Your task to perform on an android device: Search for the new nike air max 270 on Nike.com Image 0: 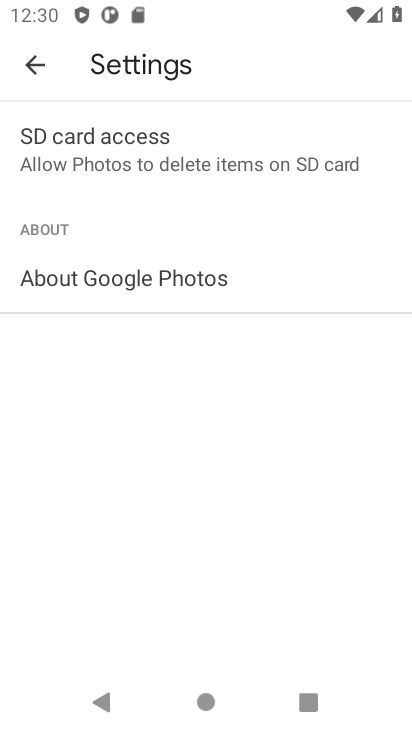
Step 0: press home button
Your task to perform on an android device: Search for the new nike air max 270 on Nike.com Image 1: 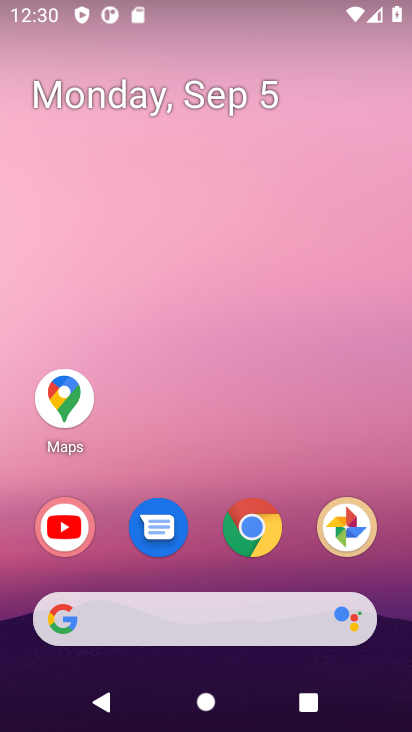
Step 1: click (260, 515)
Your task to perform on an android device: Search for the new nike air max 270 on Nike.com Image 2: 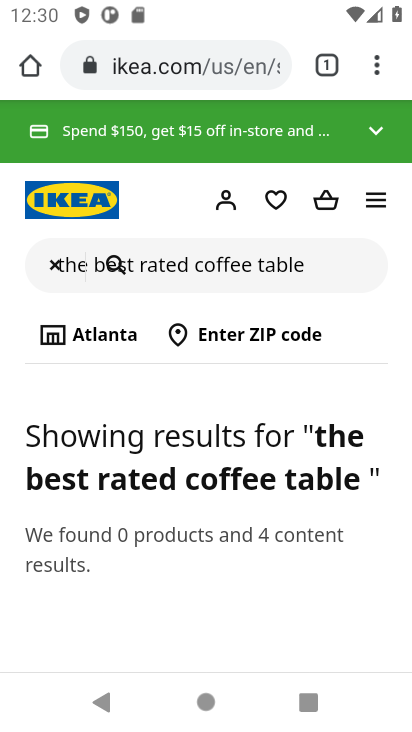
Step 2: click (202, 62)
Your task to perform on an android device: Search for the new nike air max 270 on Nike.com Image 3: 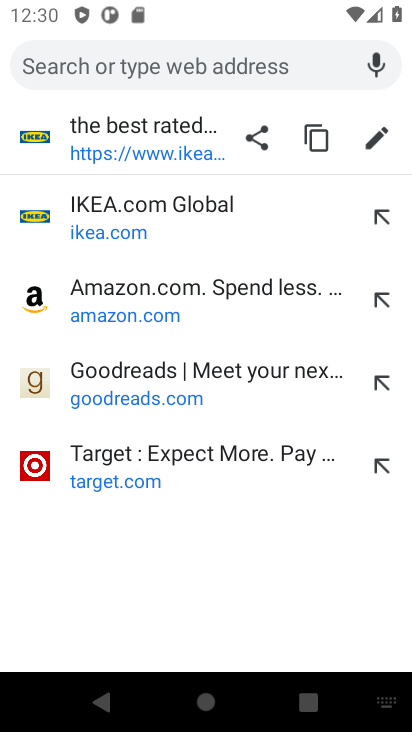
Step 3: type "nike.com"
Your task to perform on an android device: Search for the new nike air max 270 on Nike.com Image 4: 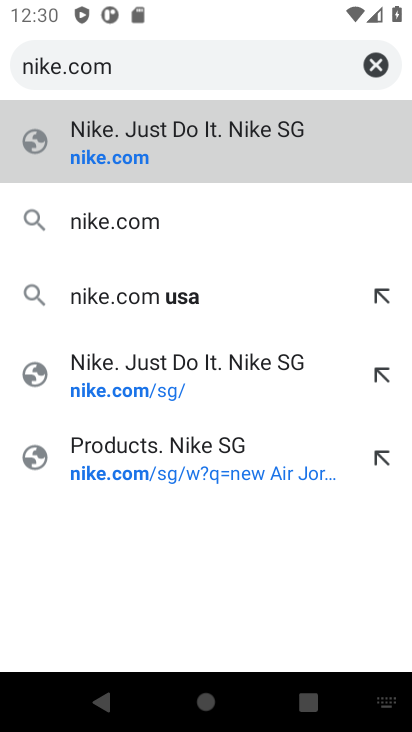
Step 4: click (130, 223)
Your task to perform on an android device: Search for the new nike air max 270 on Nike.com Image 5: 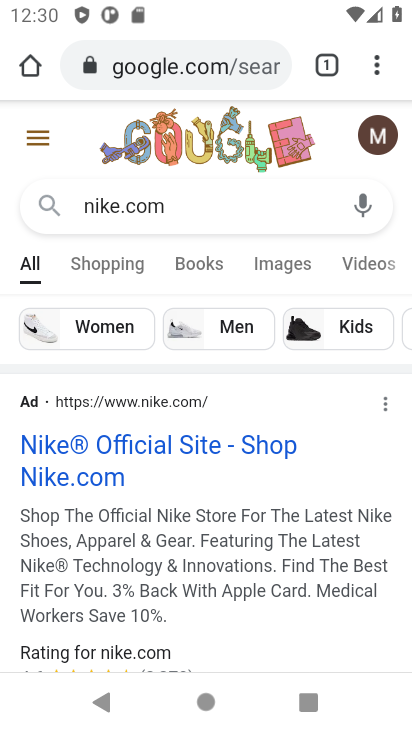
Step 5: click (129, 463)
Your task to perform on an android device: Search for the new nike air max 270 on Nike.com Image 6: 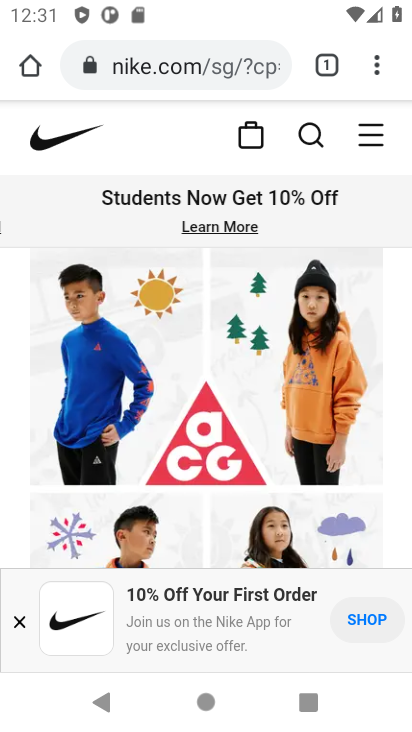
Step 6: click (315, 130)
Your task to perform on an android device: Search for the new nike air max 270 on Nike.com Image 7: 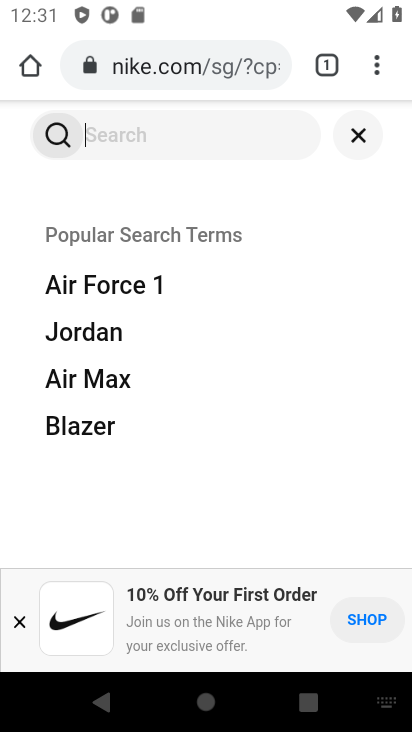
Step 7: type "nike air max 270"
Your task to perform on an android device: Search for the new nike air max 270 on Nike.com Image 8: 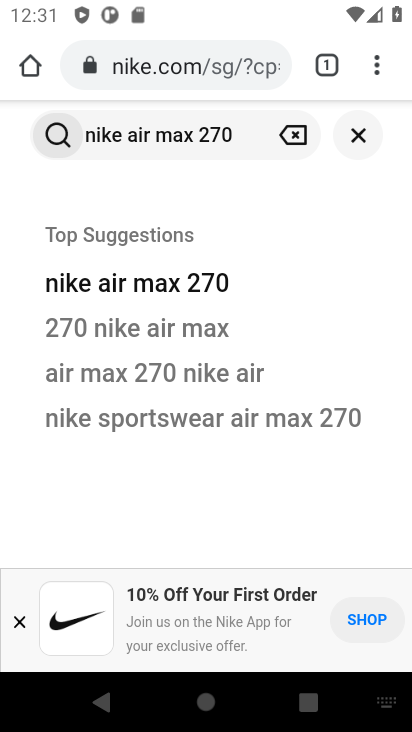
Step 8: click (222, 280)
Your task to perform on an android device: Search for the new nike air max 270 on Nike.com Image 9: 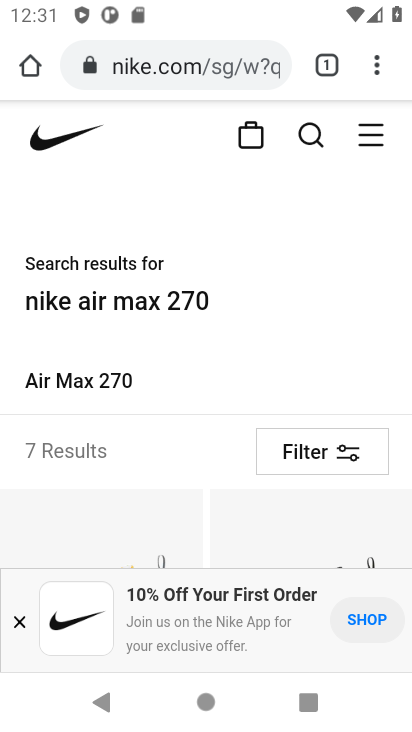
Step 9: task complete